Your task to perform on an android device: toggle data saver in the chrome app Image 0: 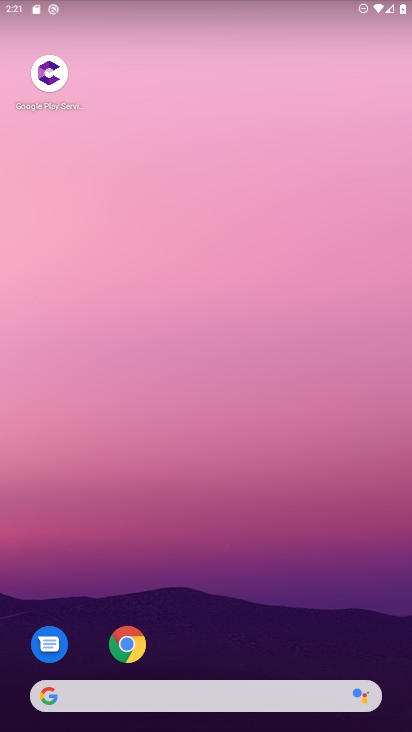
Step 0: click (136, 653)
Your task to perform on an android device: toggle data saver in the chrome app Image 1: 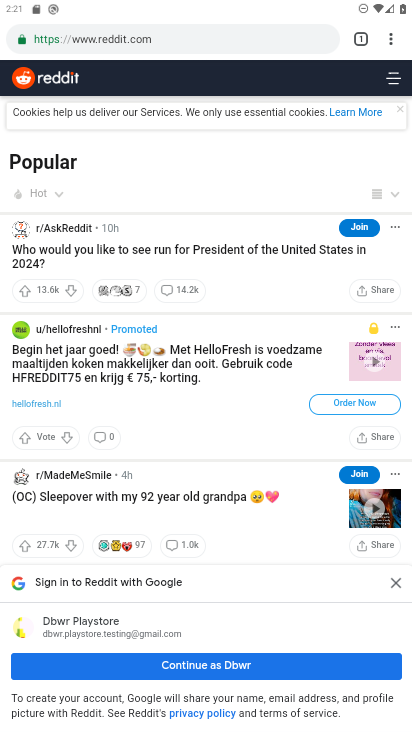
Step 1: drag from (390, 52) to (259, 505)
Your task to perform on an android device: toggle data saver in the chrome app Image 2: 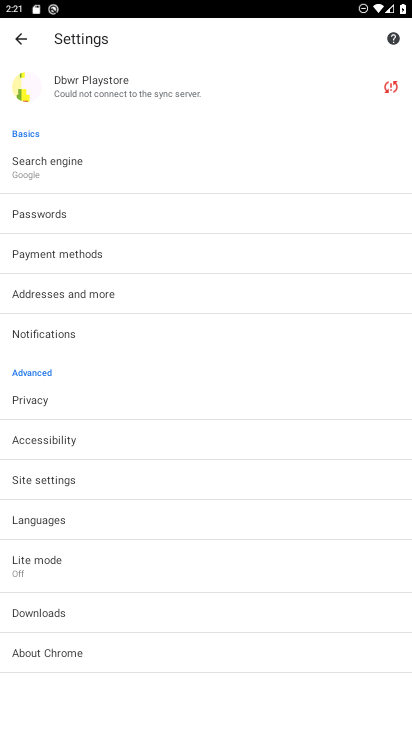
Step 2: click (48, 564)
Your task to perform on an android device: toggle data saver in the chrome app Image 3: 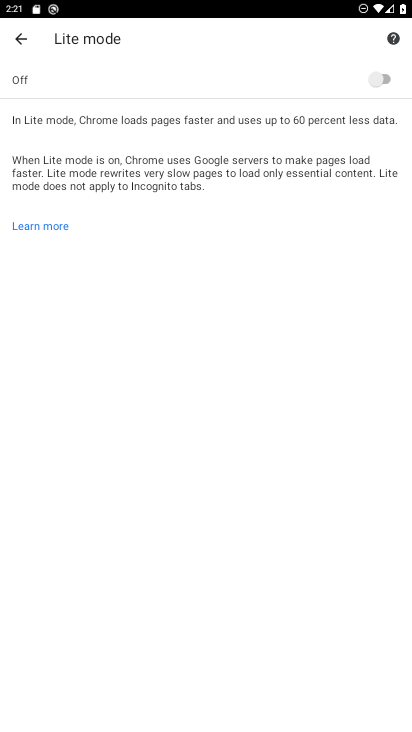
Step 3: click (384, 90)
Your task to perform on an android device: toggle data saver in the chrome app Image 4: 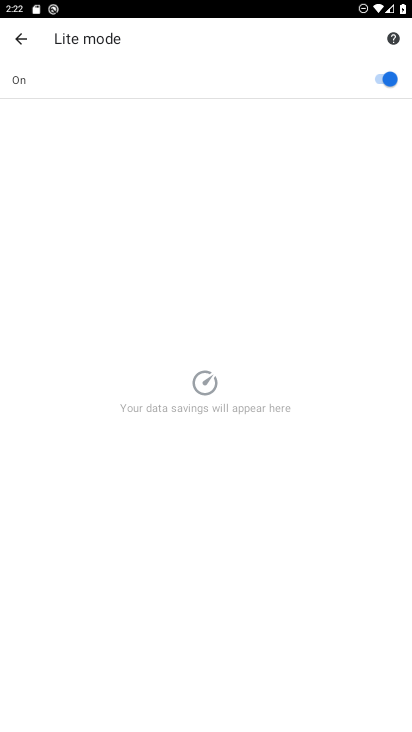
Step 4: task complete